Your task to perform on an android device: turn off notifications in google photos Image 0: 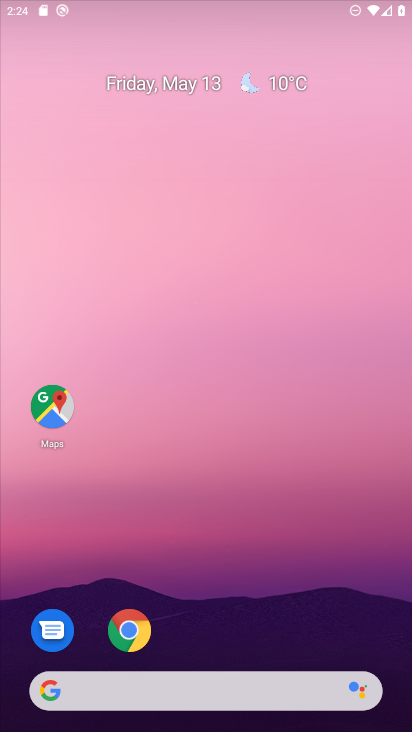
Step 0: drag from (220, 638) to (232, 48)
Your task to perform on an android device: turn off notifications in google photos Image 1: 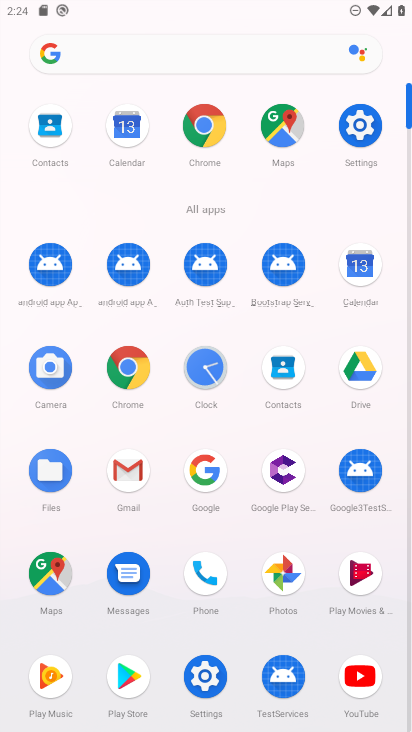
Step 1: click (277, 569)
Your task to perform on an android device: turn off notifications in google photos Image 2: 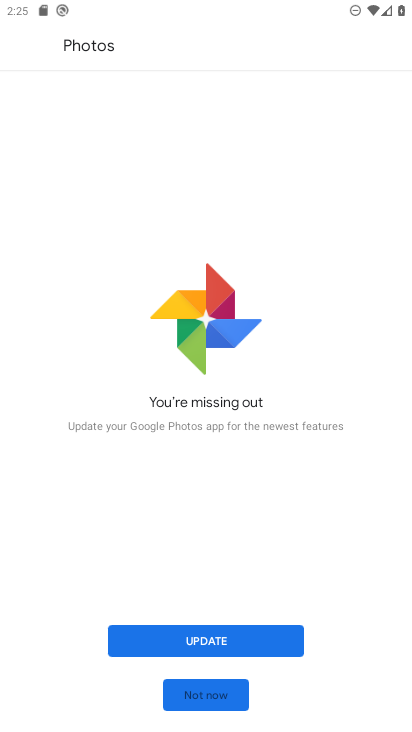
Step 2: click (205, 638)
Your task to perform on an android device: turn off notifications in google photos Image 3: 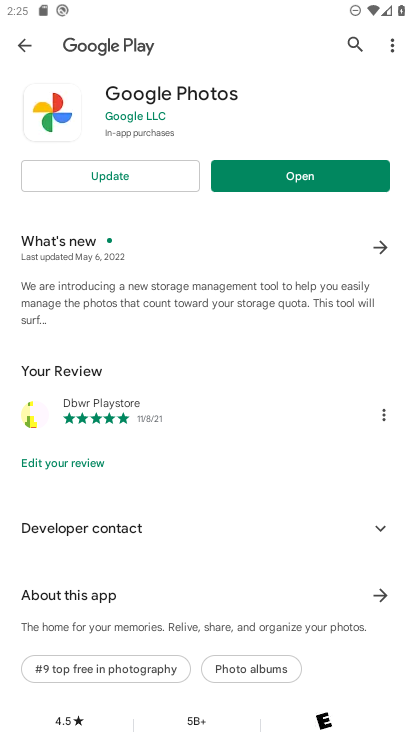
Step 3: click (110, 176)
Your task to perform on an android device: turn off notifications in google photos Image 4: 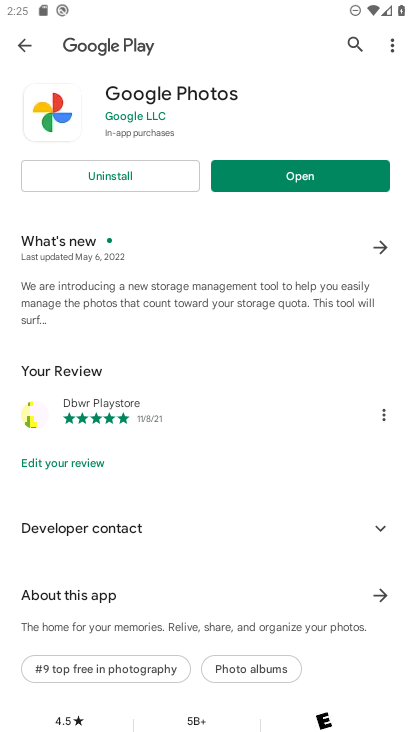
Step 4: click (304, 179)
Your task to perform on an android device: turn off notifications in google photos Image 5: 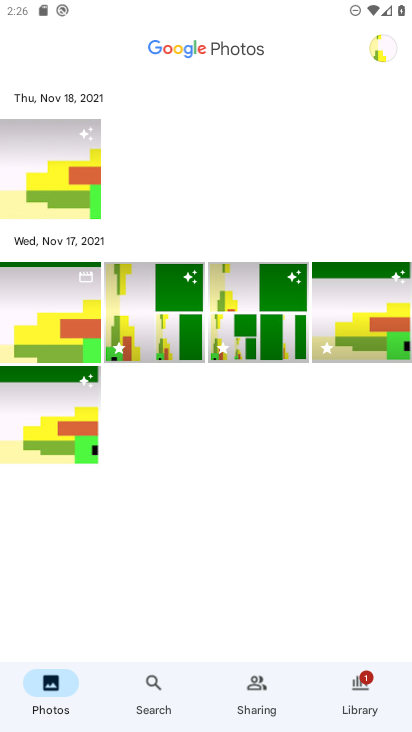
Step 5: click (378, 48)
Your task to perform on an android device: turn off notifications in google photos Image 6: 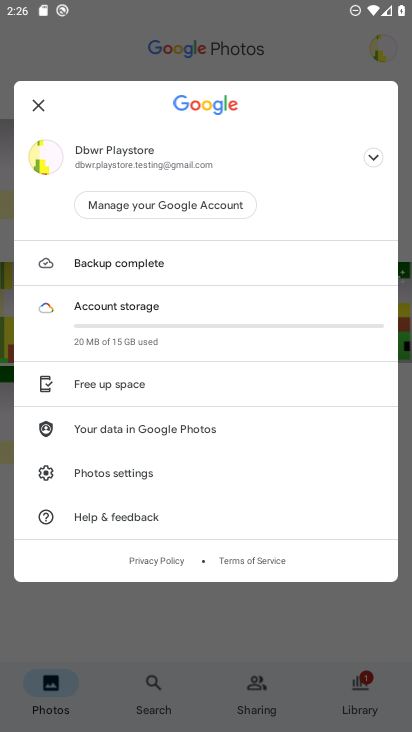
Step 6: click (132, 476)
Your task to perform on an android device: turn off notifications in google photos Image 7: 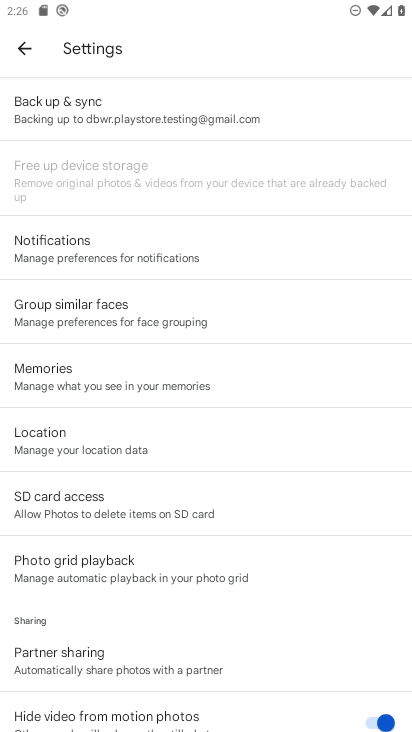
Step 7: click (96, 242)
Your task to perform on an android device: turn off notifications in google photos Image 8: 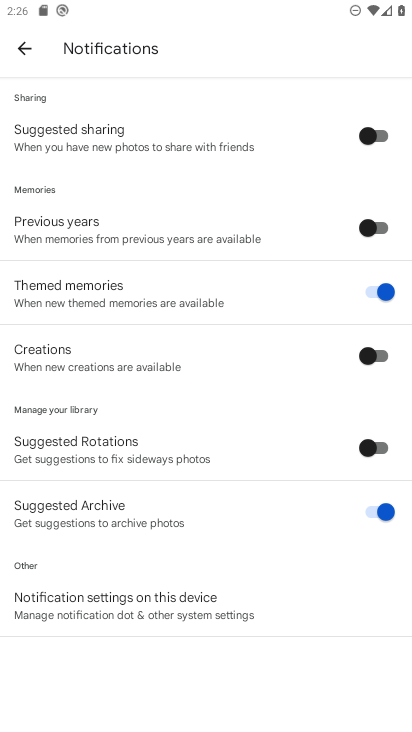
Step 8: click (202, 604)
Your task to perform on an android device: turn off notifications in google photos Image 9: 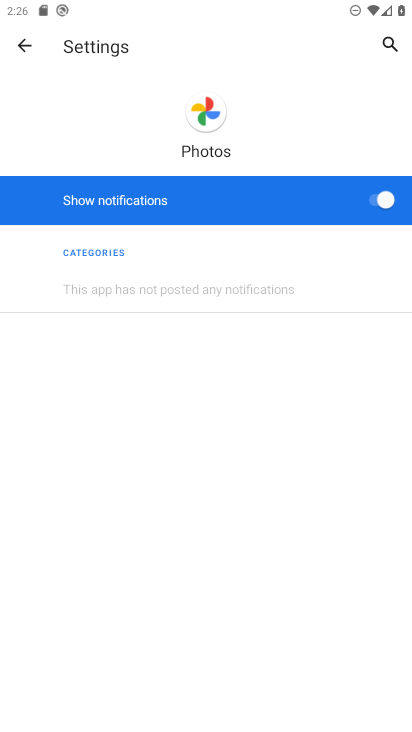
Step 9: click (383, 199)
Your task to perform on an android device: turn off notifications in google photos Image 10: 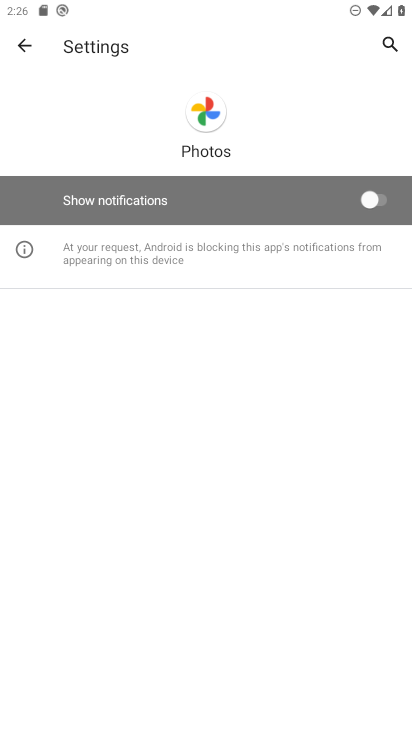
Step 10: task complete